Your task to perform on an android device: View the shopping cart on walmart.com. Add razer huntsman to the cart on walmart.com, then select checkout. Image 0: 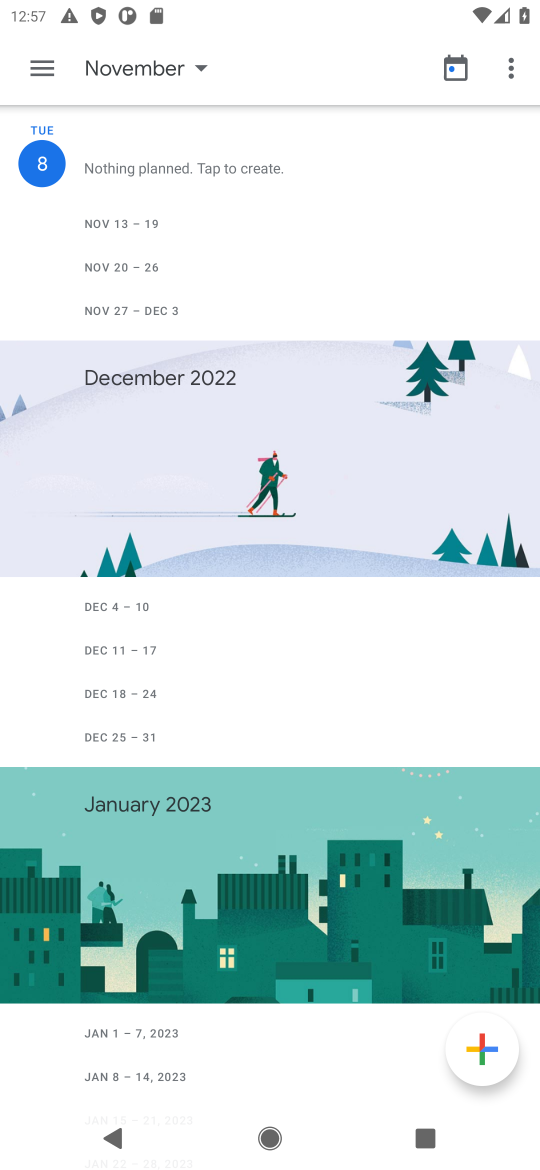
Step 0: click (357, 944)
Your task to perform on an android device: View the shopping cart on walmart.com. Add razer huntsman to the cart on walmart.com, then select checkout. Image 1: 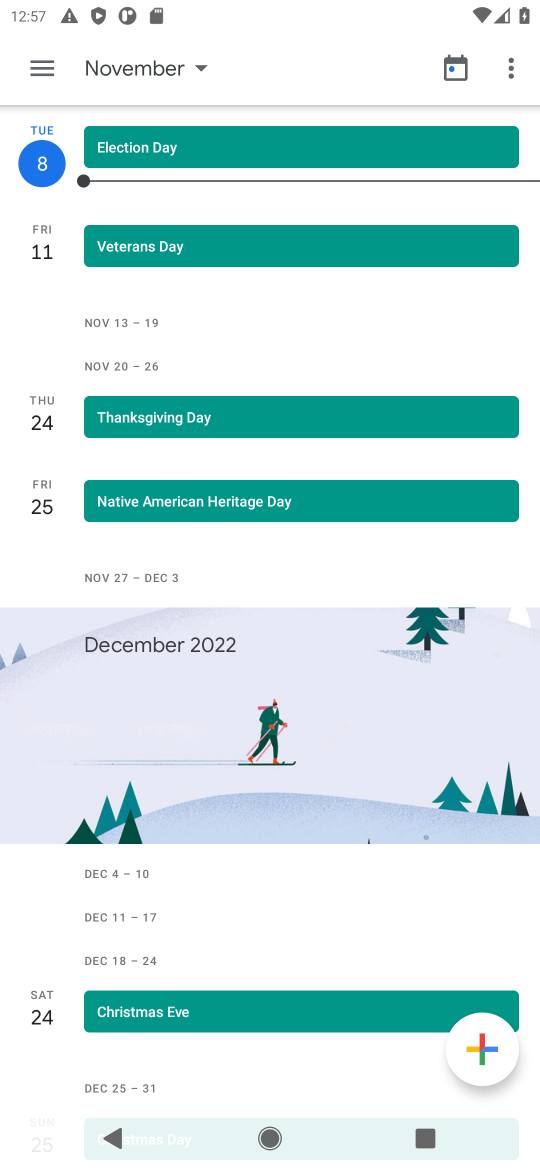
Step 1: press home button
Your task to perform on an android device: View the shopping cart on walmart.com. Add razer huntsman to the cart on walmart.com, then select checkout. Image 2: 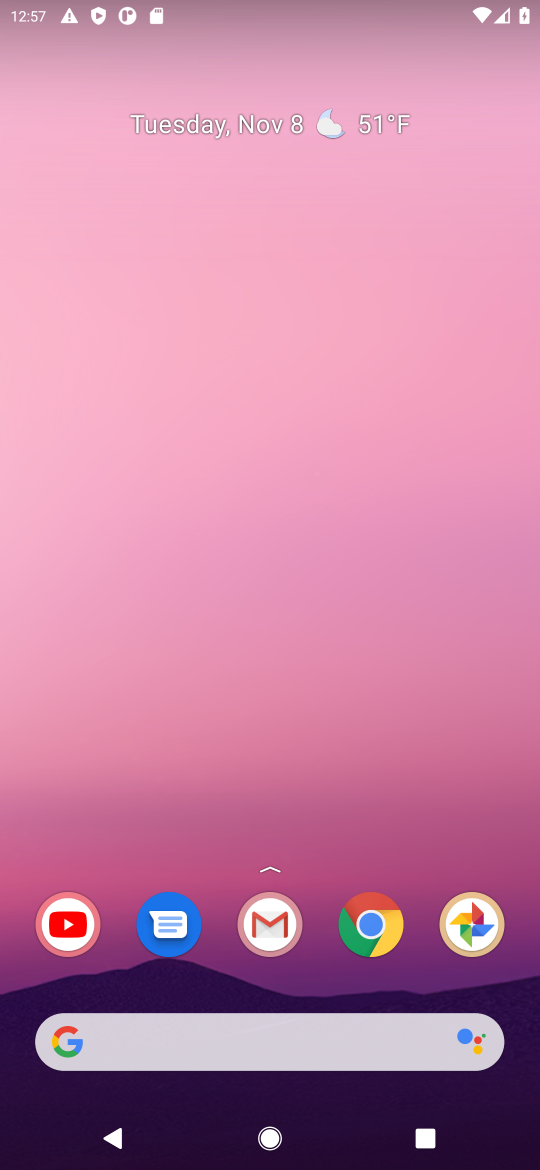
Step 2: click (372, 909)
Your task to perform on an android device: View the shopping cart on walmart.com. Add razer huntsman to the cart on walmart.com, then select checkout. Image 3: 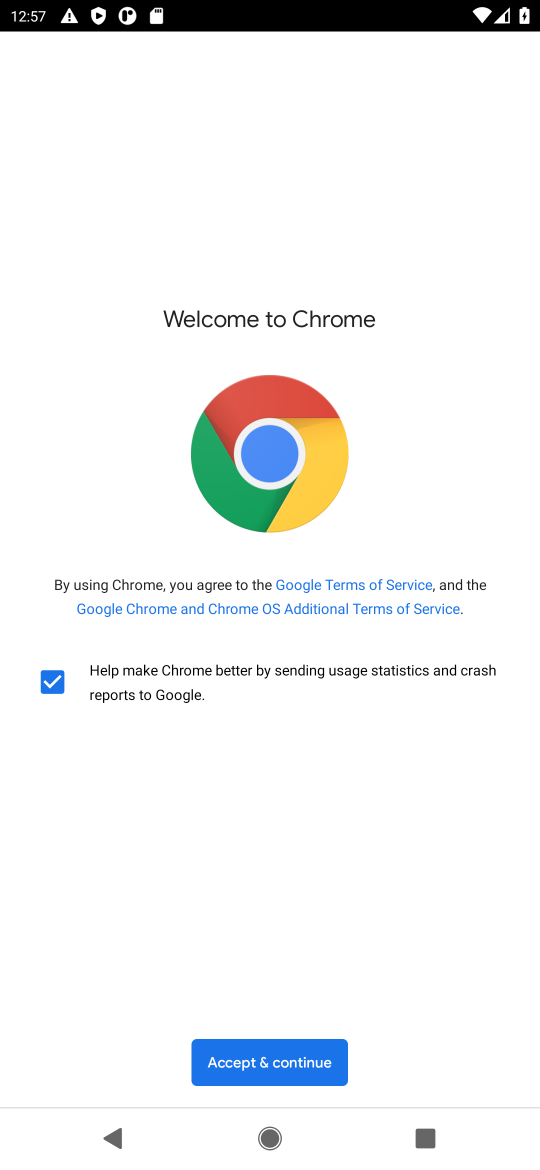
Step 3: click (276, 1056)
Your task to perform on an android device: View the shopping cart on walmart.com. Add razer huntsman to the cart on walmart.com, then select checkout. Image 4: 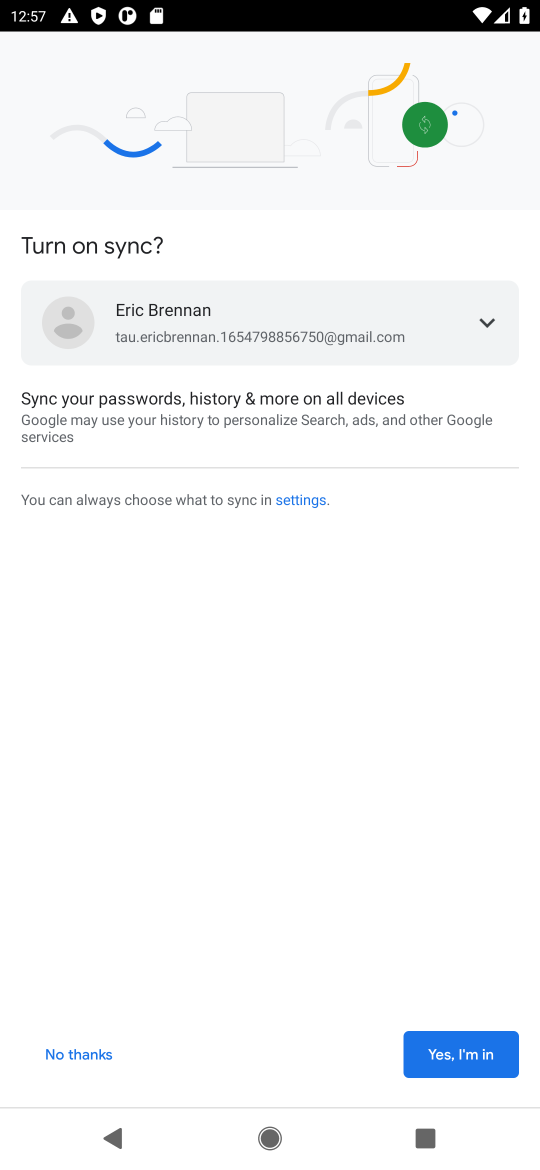
Step 4: click (418, 1049)
Your task to perform on an android device: View the shopping cart on walmart.com. Add razer huntsman to the cart on walmart.com, then select checkout. Image 5: 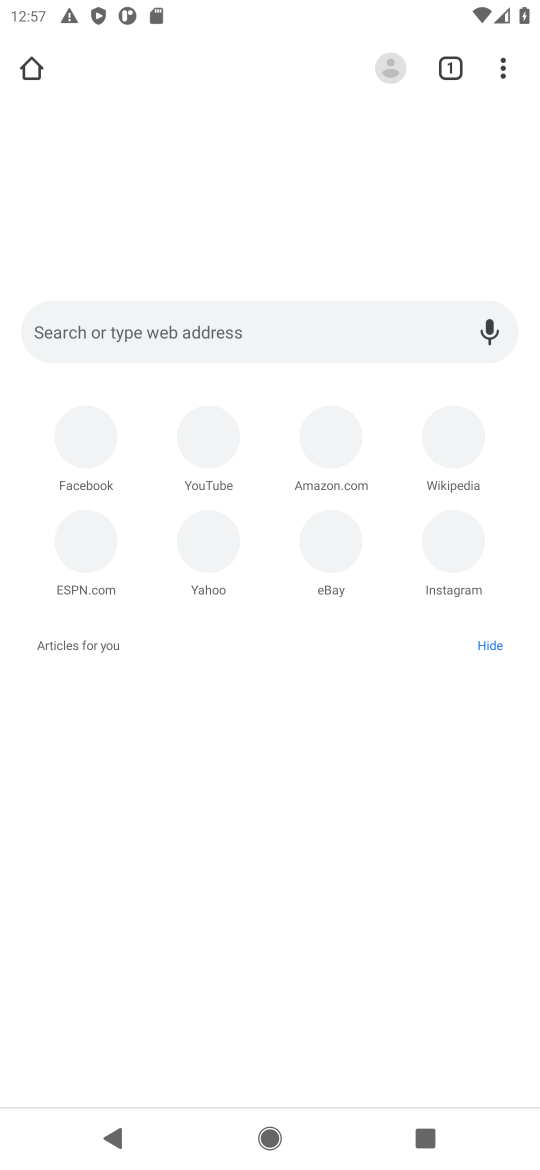
Step 5: click (418, 1049)
Your task to perform on an android device: View the shopping cart on walmart.com. Add razer huntsman to the cart on walmart.com, then select checkout. Image 6: 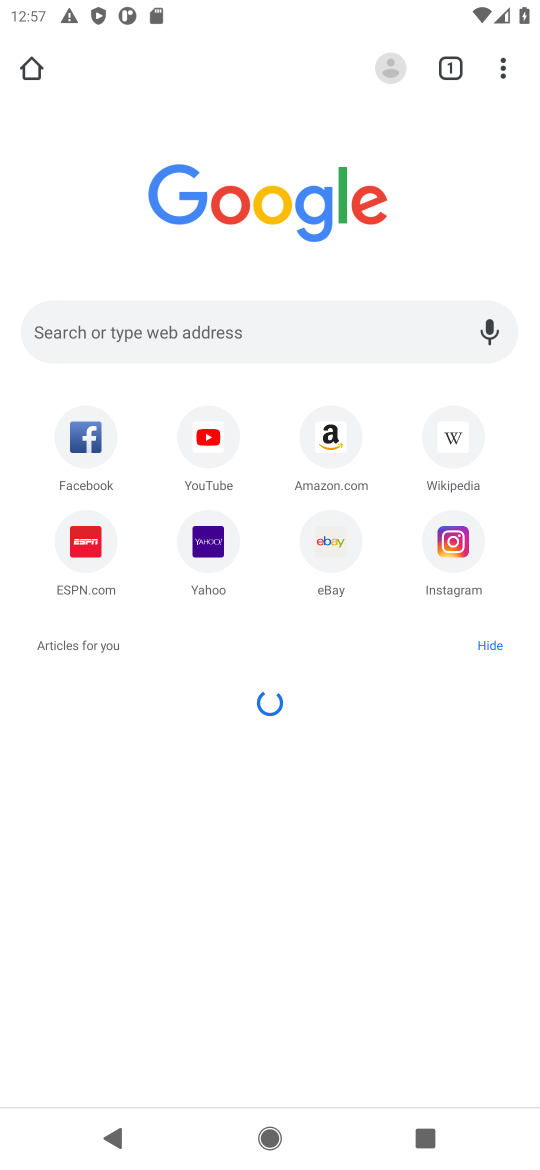
Step 6: click (243, 333)
Your task to perform on an android device: View the shopping cart on walmart.com. Add razer huntsman to the cart on walmart.com, then select checkout. Image 7: 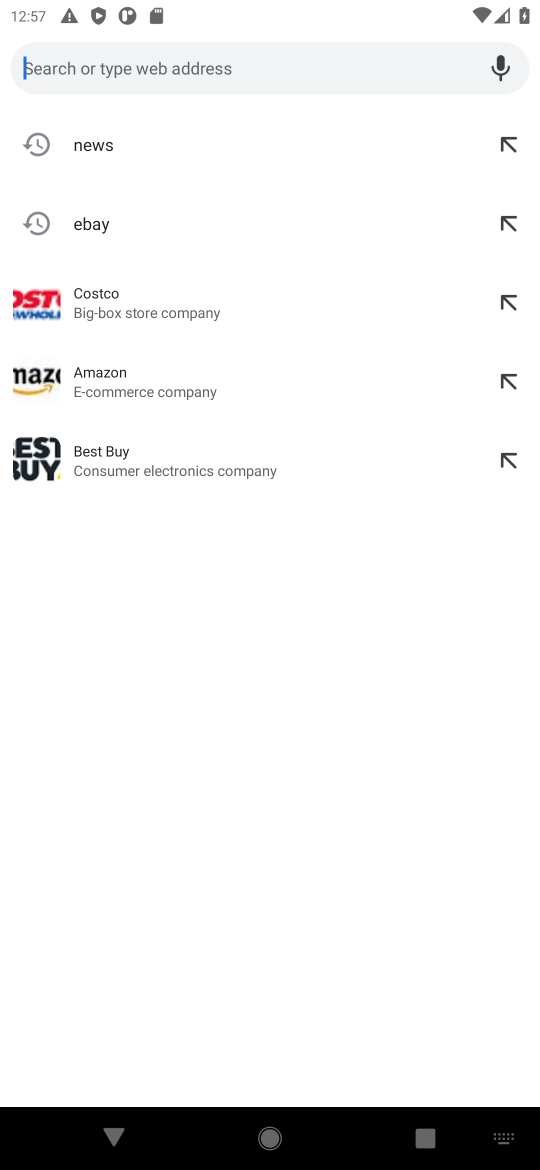
Step 7: type "walmart"
Your task to perform on an android device: View the shopping cart on walmart.com. Add razer huntsman to the cart on walmart.com, then select checkout. Image 8: 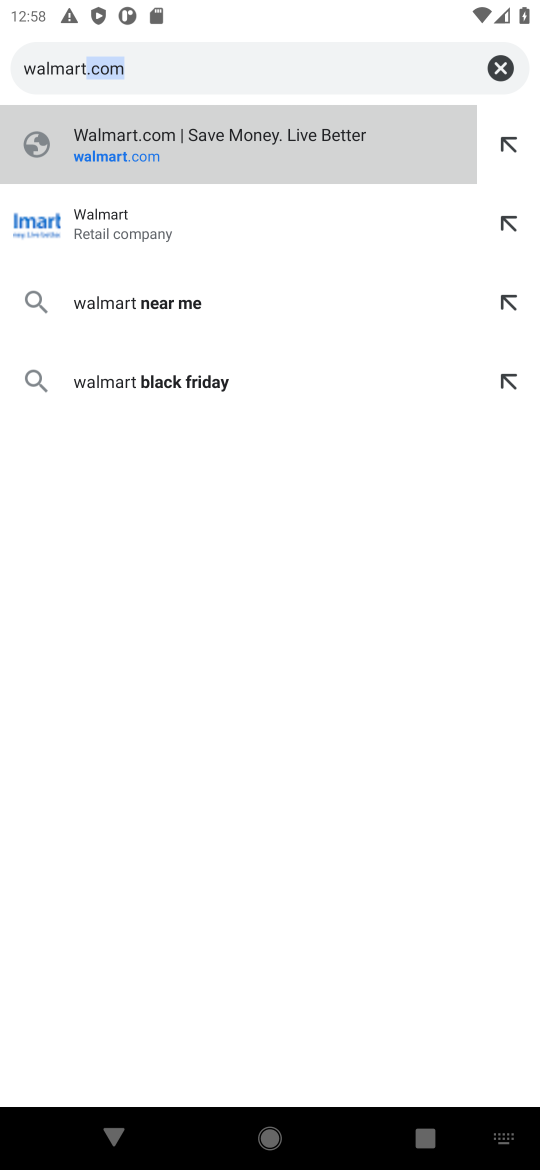
Step 8: click (119, 223)
Your task to perform on an android device: View the shopping cart on walmart.com. Add razer huntsman to the cart on walmart.com, then select checkout. Image 9: 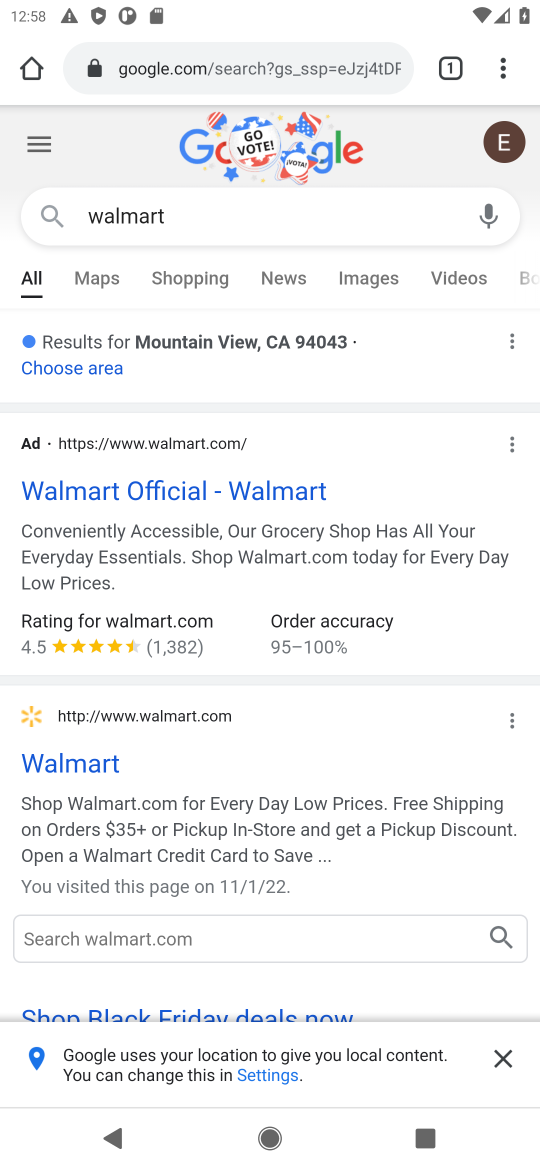
Step 9: click (192, 501)
Your task to perform on an android device: View the shopping cart on walmart.com. Add razer huntsman to the cart on walmart.com, then select checkout. Image 10: 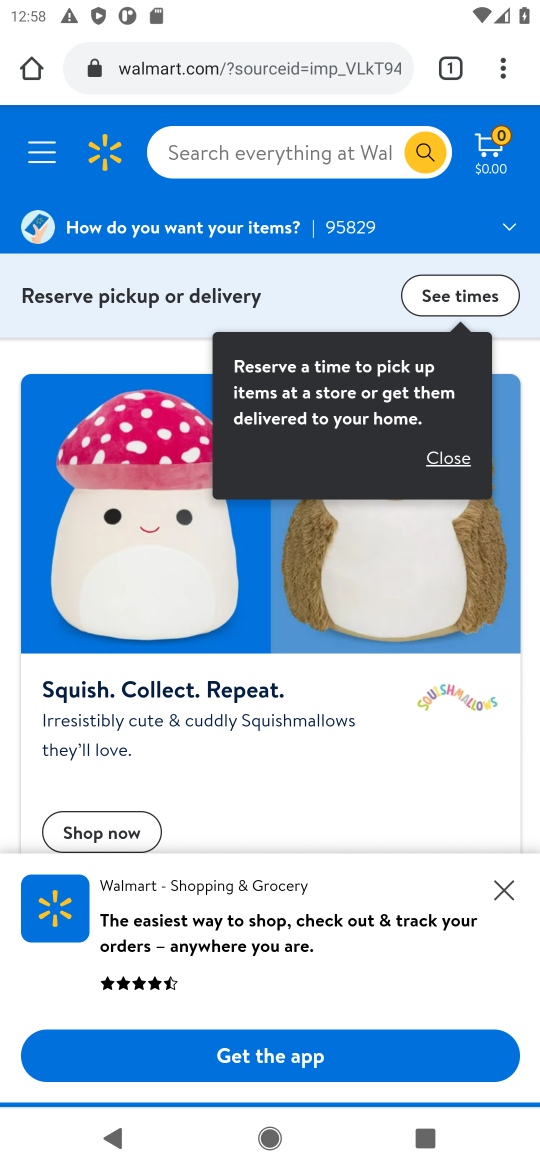
Step 10: click (477, 152)
Your task to perform on an android device: View the shopping cart on walmart.com. Add razer huntsman to the cart on walmart.com, then select checkout. Image 11: 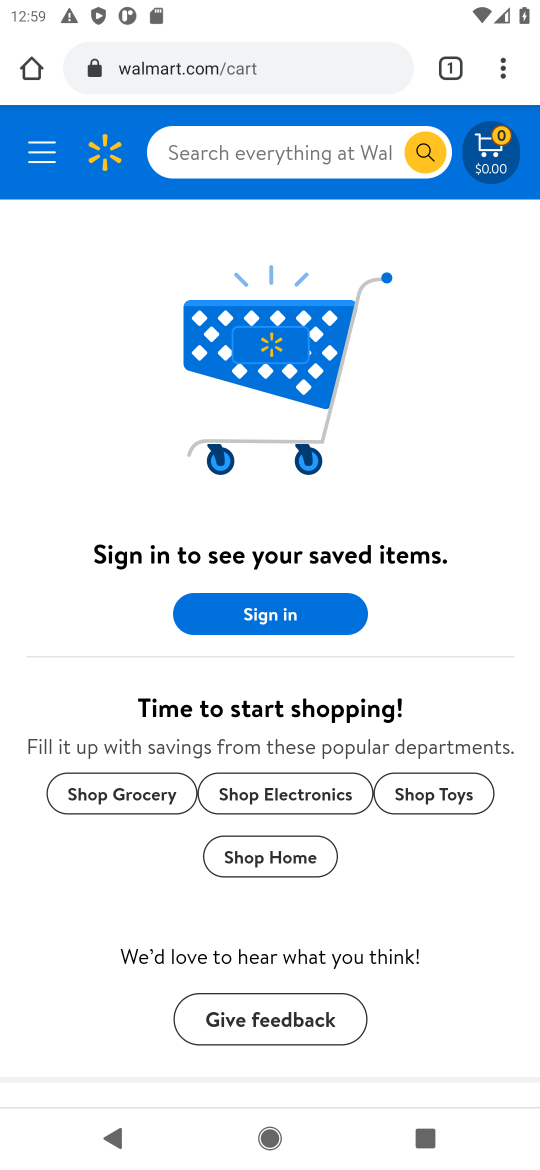
Step 11: click (238, 155)
Your task to perform on an android device: View the shopping cart on walmart.com. Add razer huntsman to the cart on walmart.com, then select checkout. Image 12: 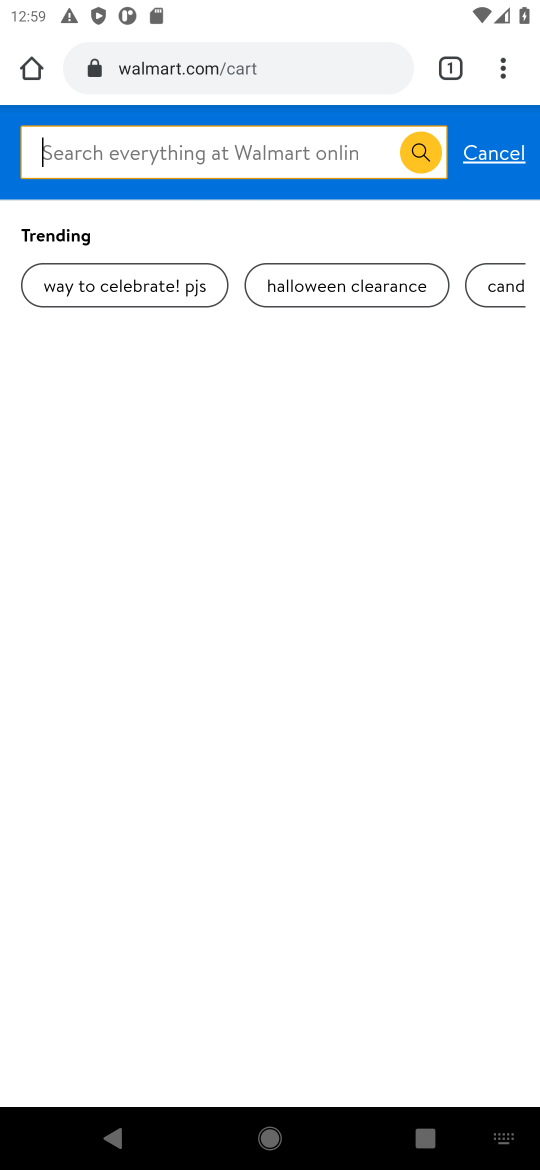
Step 12: type "razer huntsman"
Your task to perform on an android device: View the shopping cart on walmart.com. Add razer huntsman to the cart on walmart.com, then select checkout. Image 13: 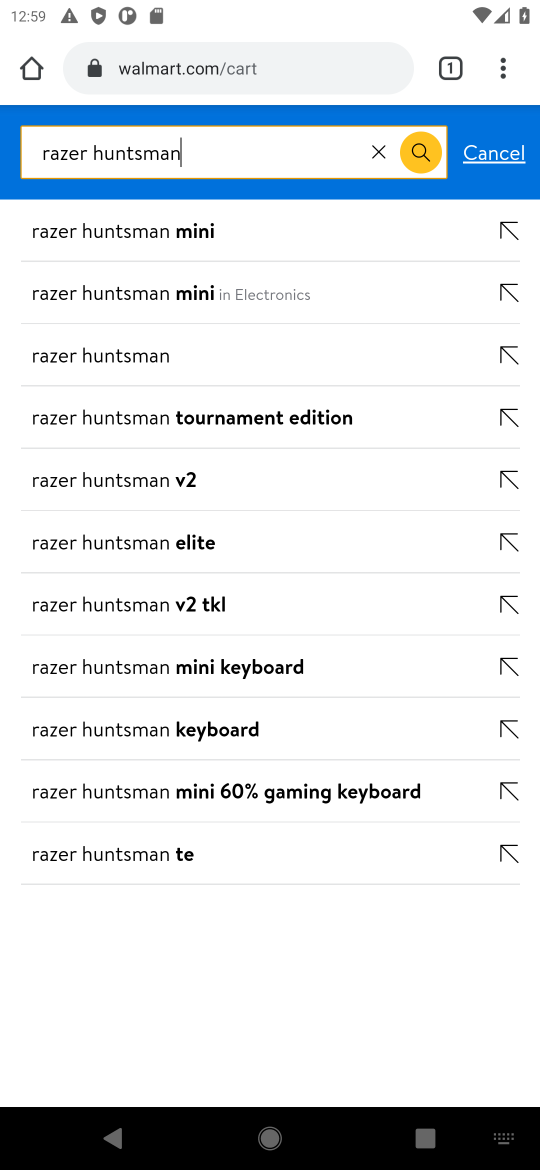
Step 13: click (412, 147)
Your task to perform on an android device: View the shopping cart on walmart.com. Add razer huntsman to the cart on walmart.com, then select checkout. Image 14: 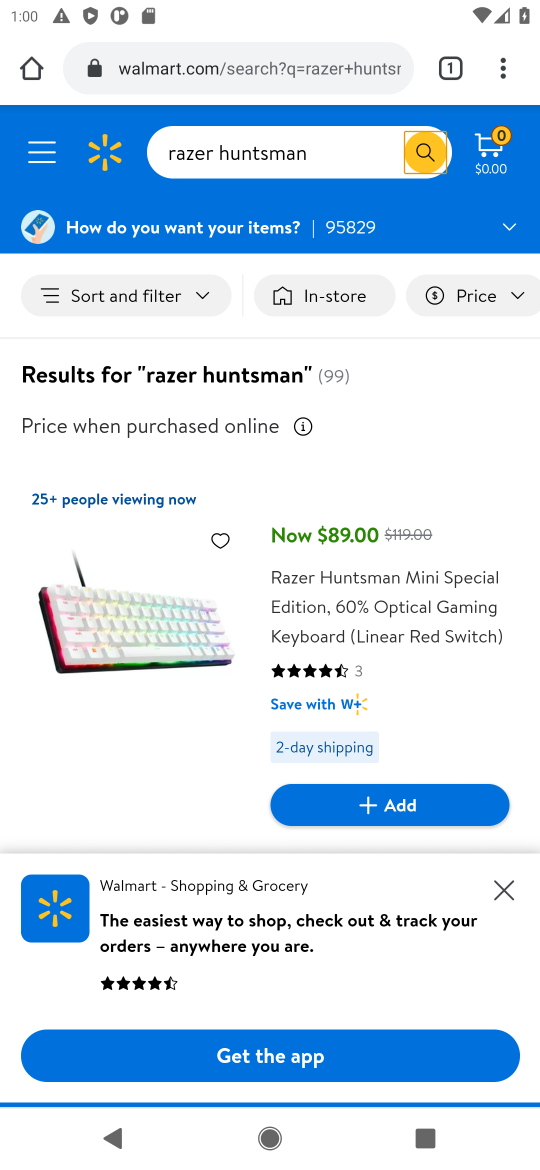
Step 14: click (378, 806)
Your task to perform on an android device: View the shopping cart on walmart.com. Add razer huntsman to the cart on walmart.com, then select checkout. Image 15: 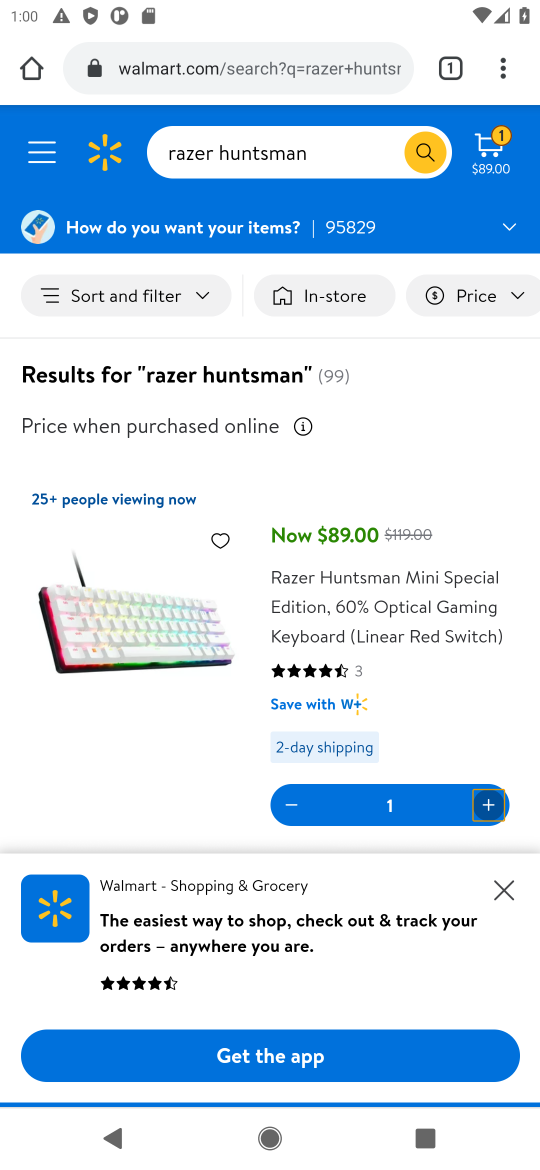
Step 15: click (476, 149)
Your task to perform on an android device: View the shopping cart on walmart.com. Add razer huntsman to the cart on walmart.com, then select checkout. Image 16: 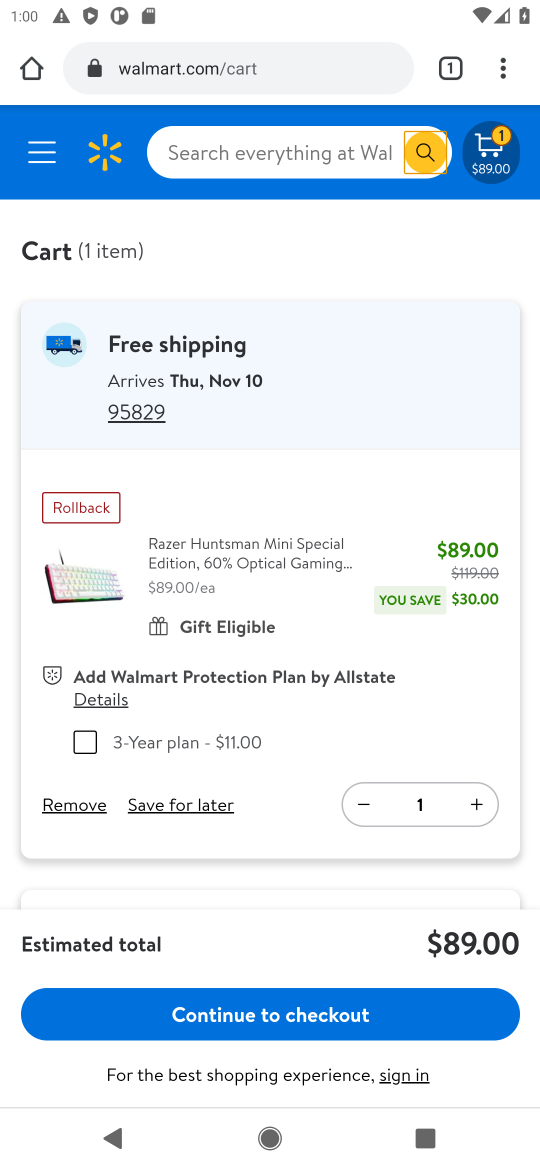
Step 16: click (208, 1019)
Your task to perform on an android device: View the shopping cart on walmart.com. Add razer huntsman to the cart on walmart.com, then select checkout. Image 17: 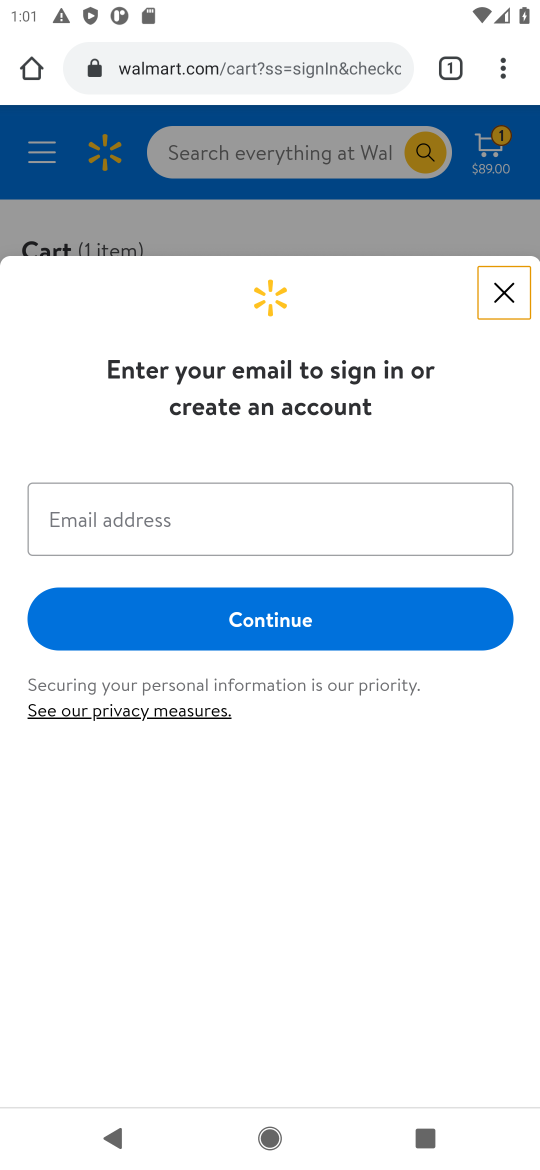
Step 17: task complete